Your task to perform on an android device: Add "dell xps" to the cart on walmart Image 0: 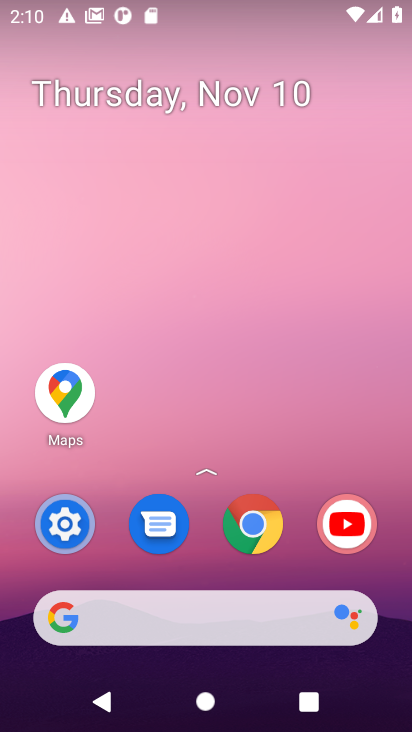
Step 0: click (259, 519)
Your task to perform on an android device: Add "dell xps" to the cart on walmart Image 1: 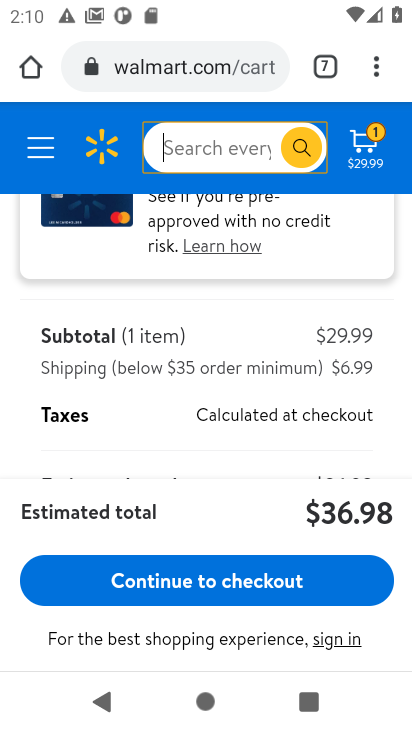
Step 1: click (217, 146)
Your task to perform on an android device: Add "dell xps" to the cart on walmart Image 2: 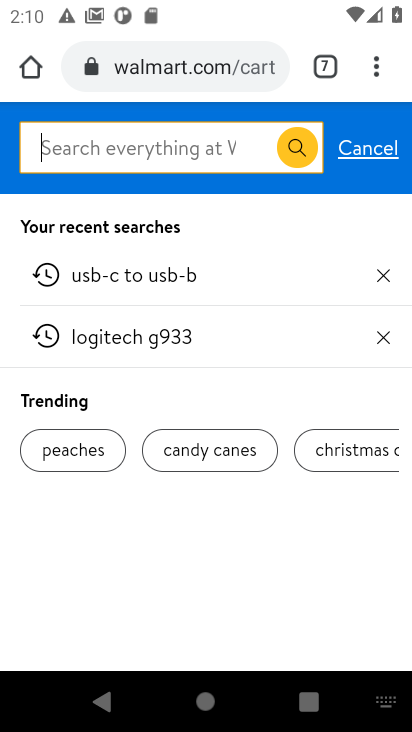
Step 2: type "dell xps"
Your task to perform on an android device: Add "dell xps" to the cart on walmart Image 3: 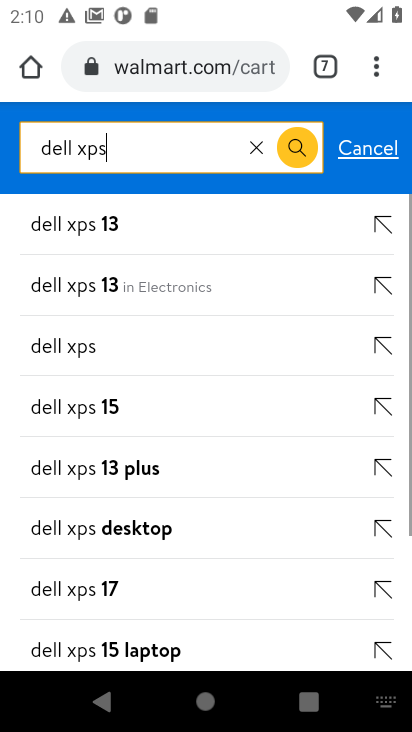
Step 3: click (86, 283)
Your task to perform on an android device: Add "dell xps" to the cart on walmart Image 4: 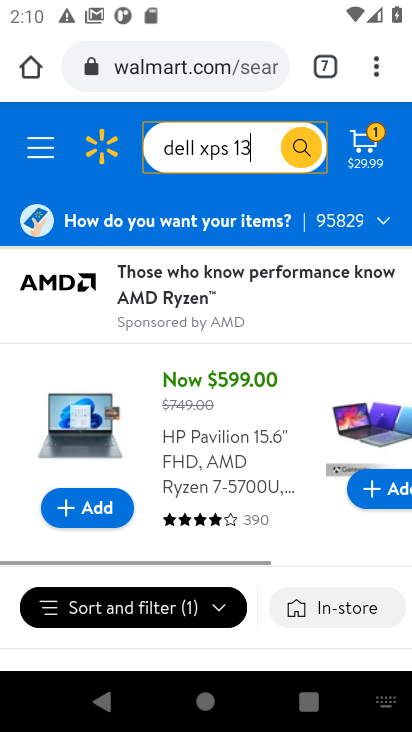
Step 4: drag from (252, 572) to (285, 307)
Your task to perform on an android device: Add "dell xps" to the cart on walmart Image 5: 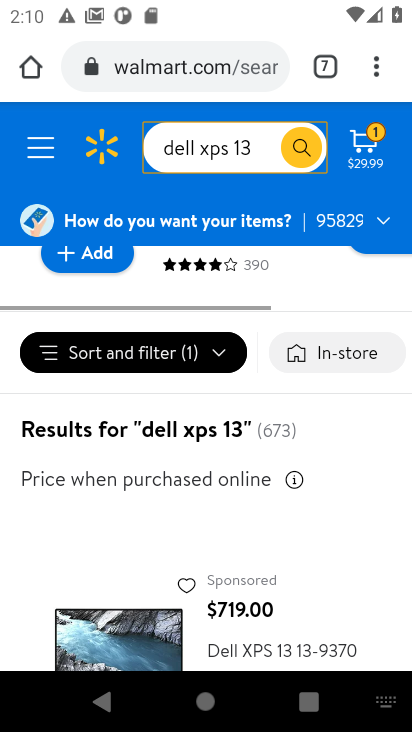
Step 5: drag from (276, 538) to (290, 369)
Your task to perform on an android device: Add "dell xps" to the cart on walmart Image 6: 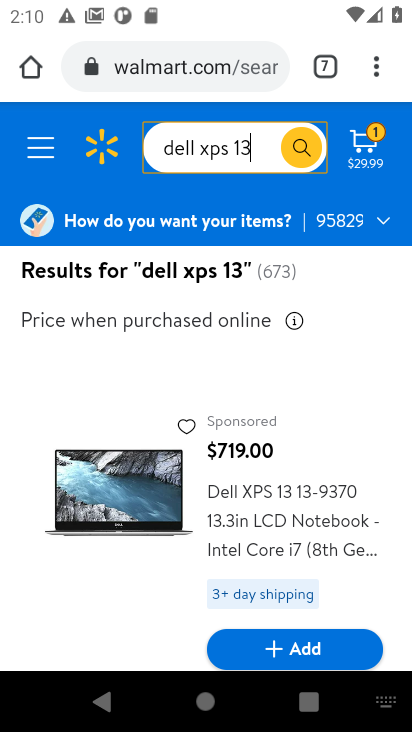
Step 6: click (309, 646)
Your task to perform on an android device: Add "dell xps" to the cart on walmart Image 7: 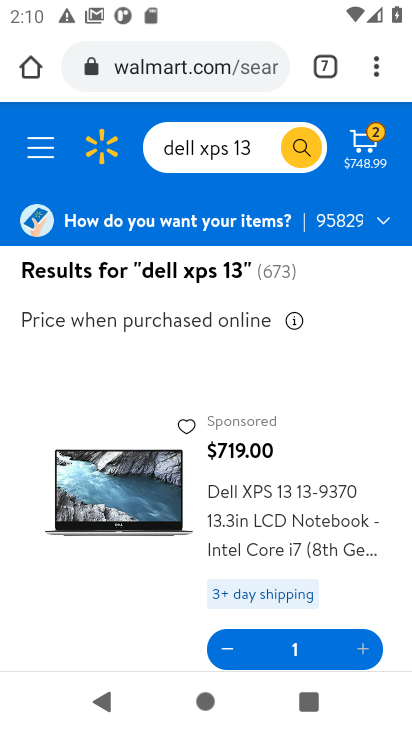
Step 7: task complete